Your task to perform on an android device: Open Google Chrome Image 0: 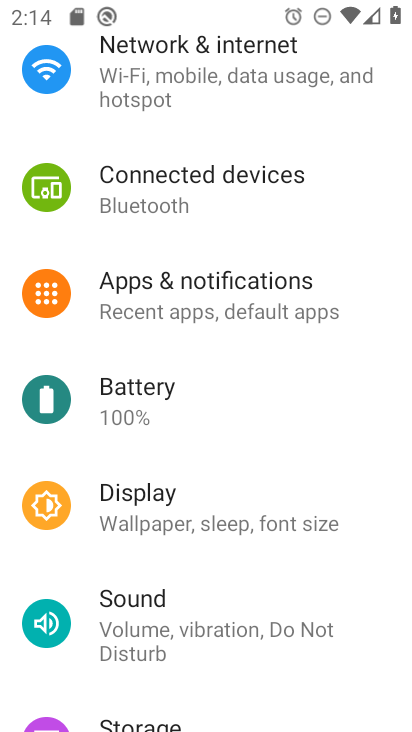
Step 0: press home button
Your task to perform on an android device: Open Google Chrome Image 1: 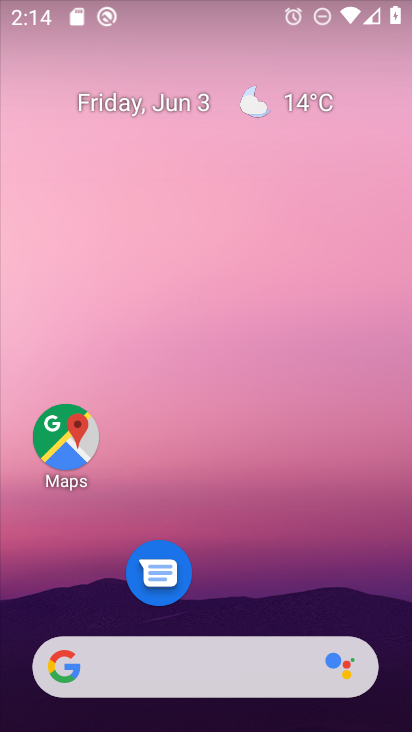
Step 1: drag from (224, 532) to (289, 53)
Your task to perform on an android device: Open Google Chrome Image 2: 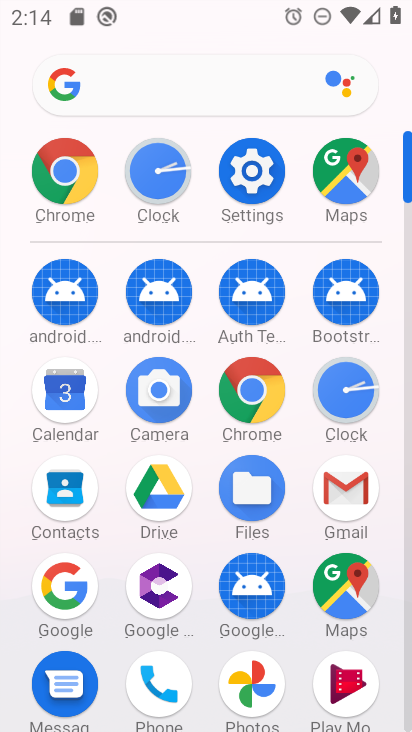
Step 2: click (261, 394)
Your task to perform on an android device: Open Google Chrome Image 3: 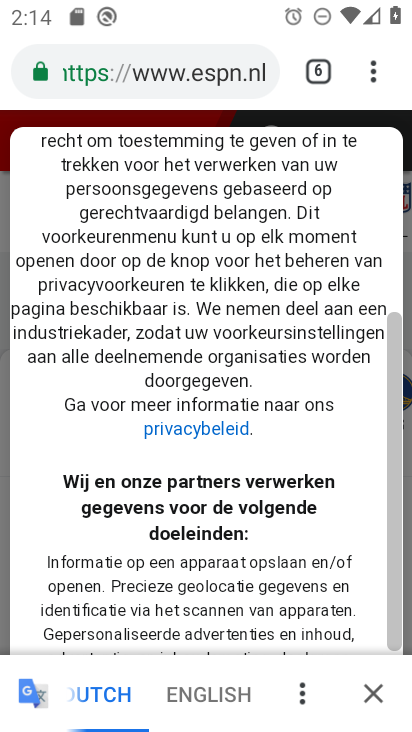
Step 3: task complete